Your task to perform on an android device: find photos in the google photos app Image 0: 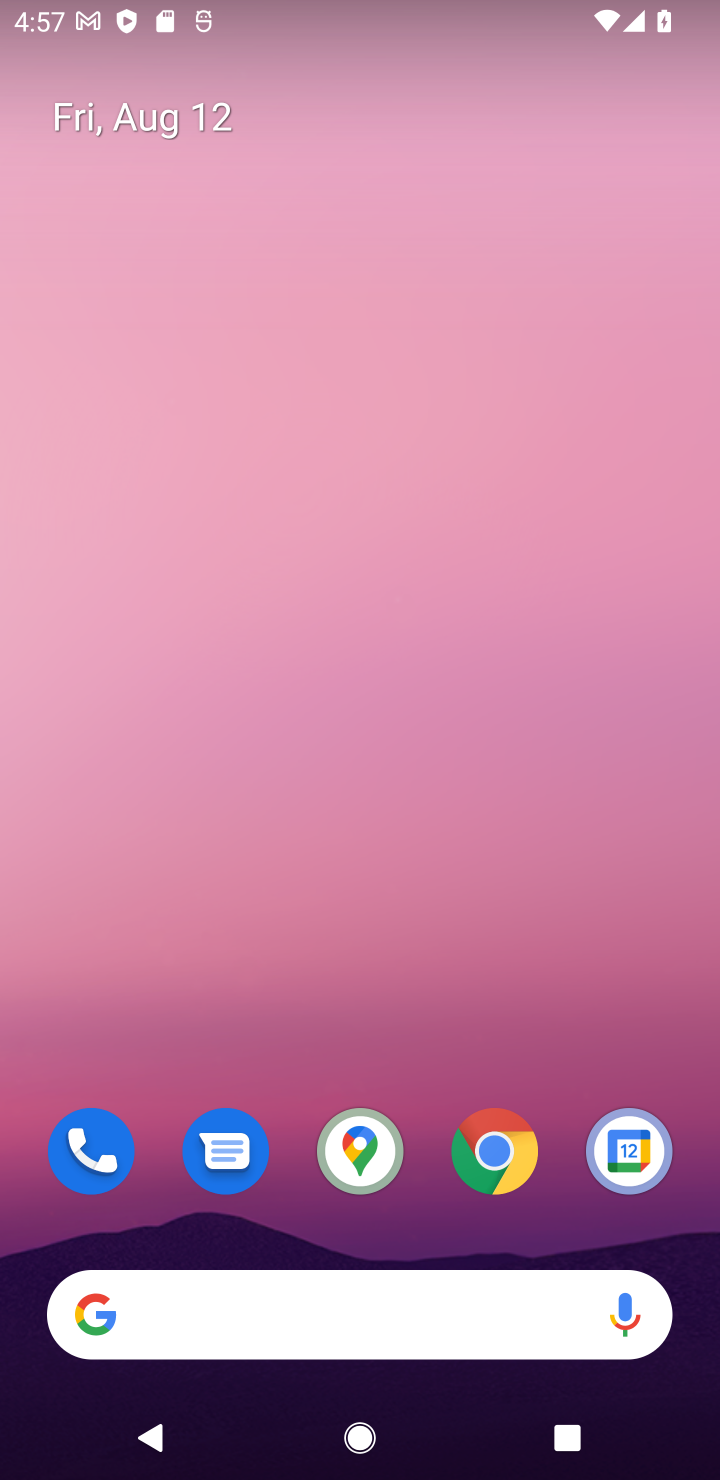
Step 0: drag from (508, 972) to (460, 32)
Your task to perform on an android device: find photos in the google photos app Image 1: 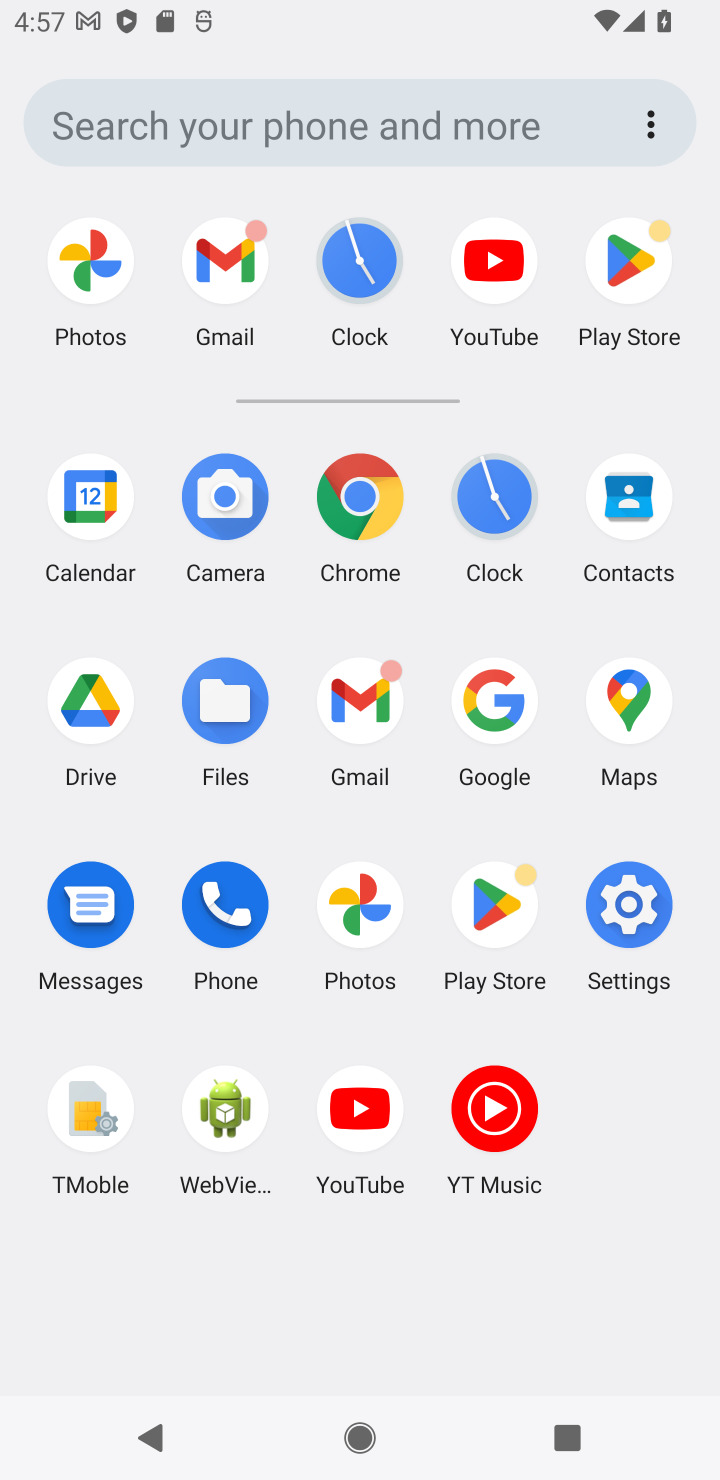
Step 1: click (348, 899)
Your task to perform on an android device: find photos in the google photos app Image 2: 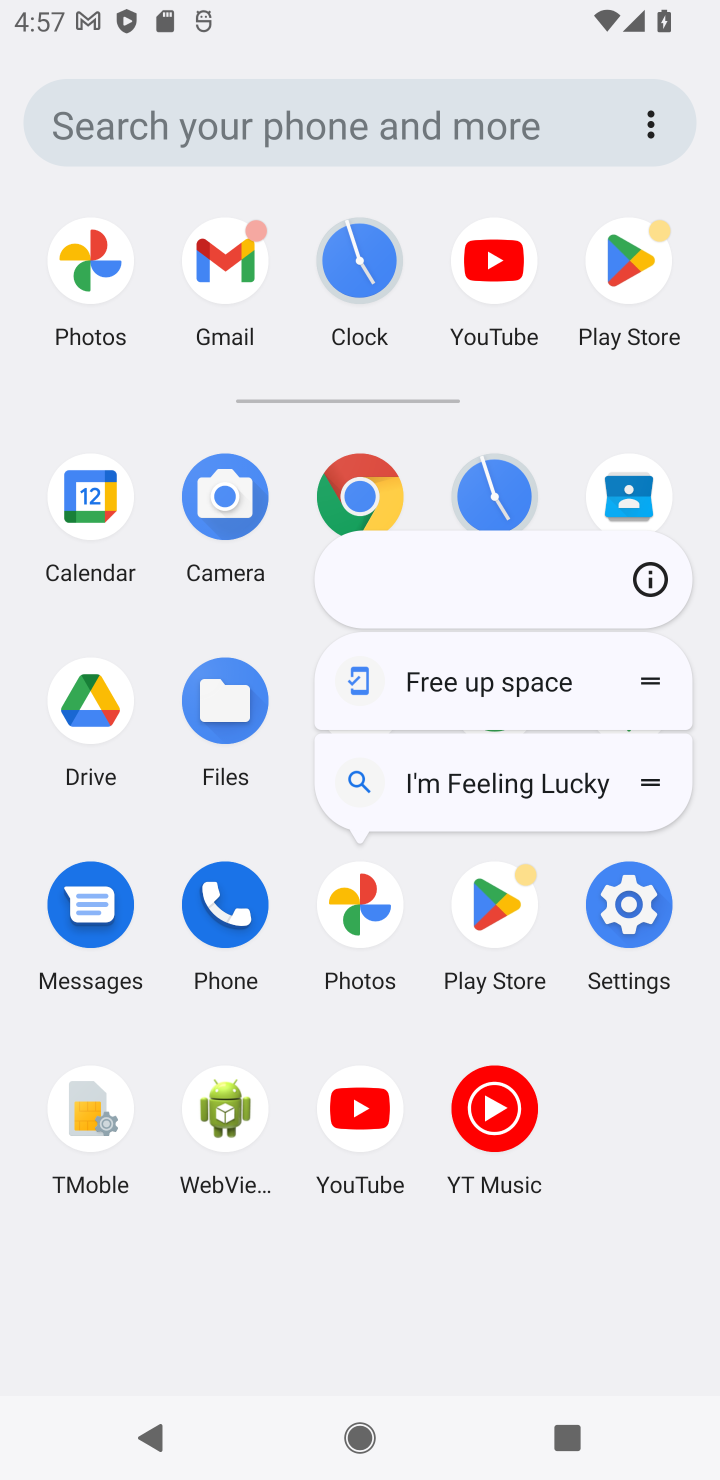
Step 2: click (341, 902)
Your task to perform on an android device: find photos in the google photos app Image 3: 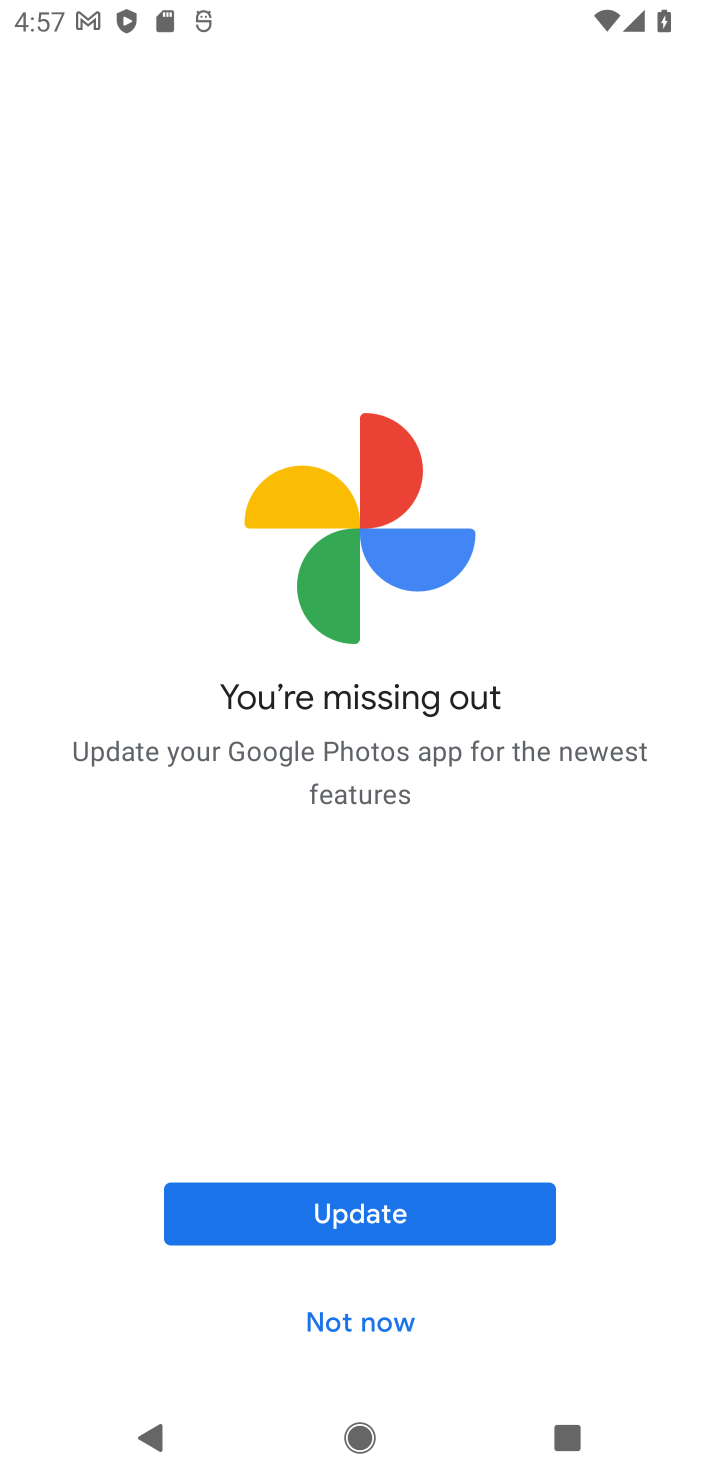
Step 3: click (357, 1299)
Your task to perform on an android device: find photos in the google photos app Image 4: 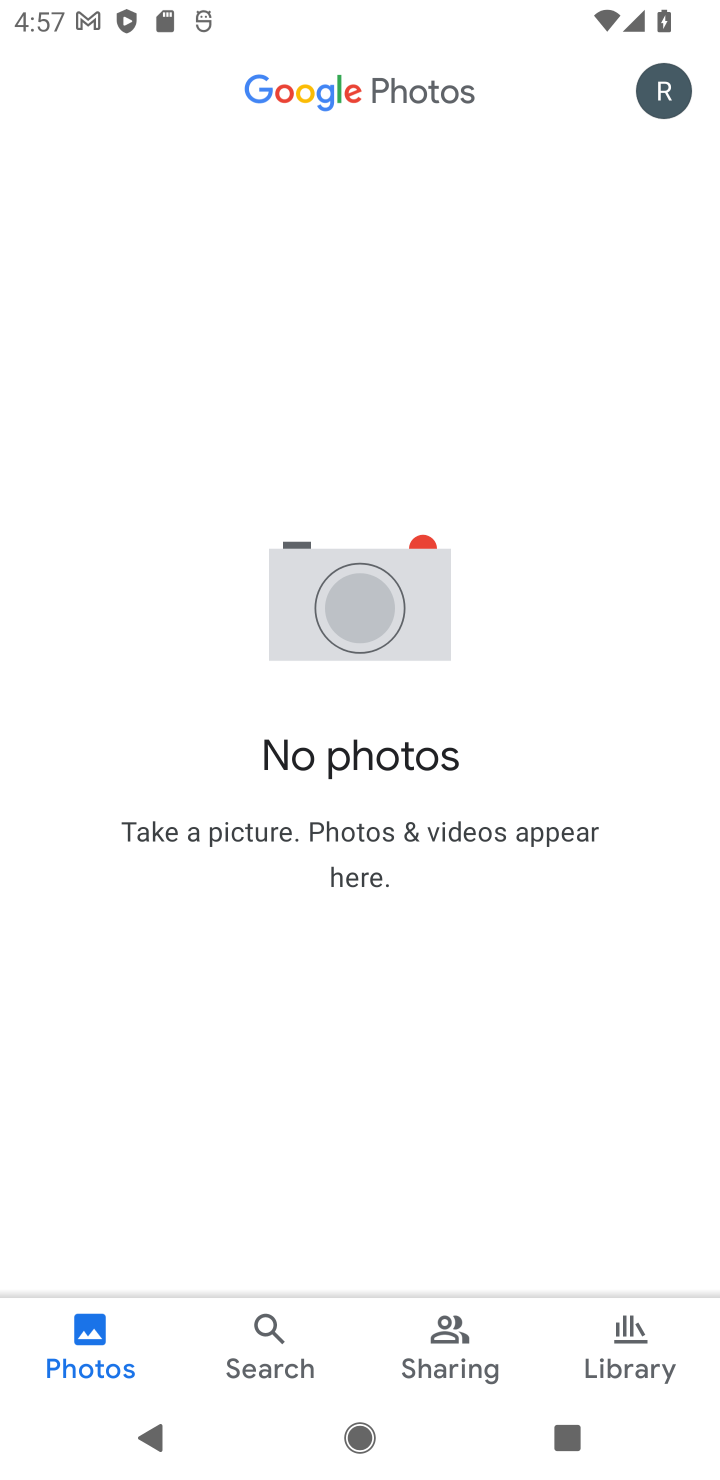
Step 4: task complete